Your task to perform on an android device: Open internet settings Image 0: 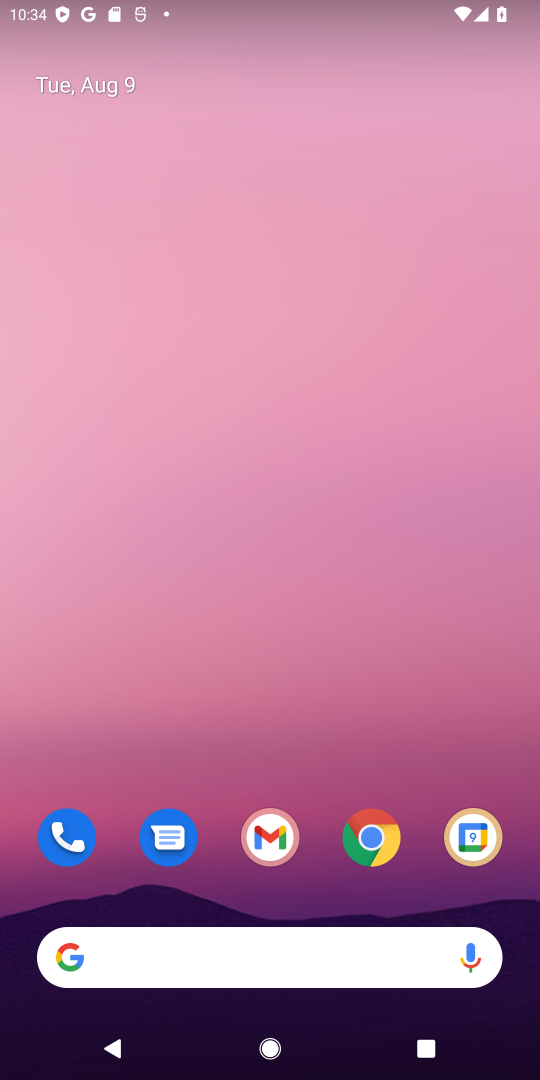
Step 0: drag from (312, 824) to (300, 141)
Your task to perform on an android device: Open internet settings Image 1: 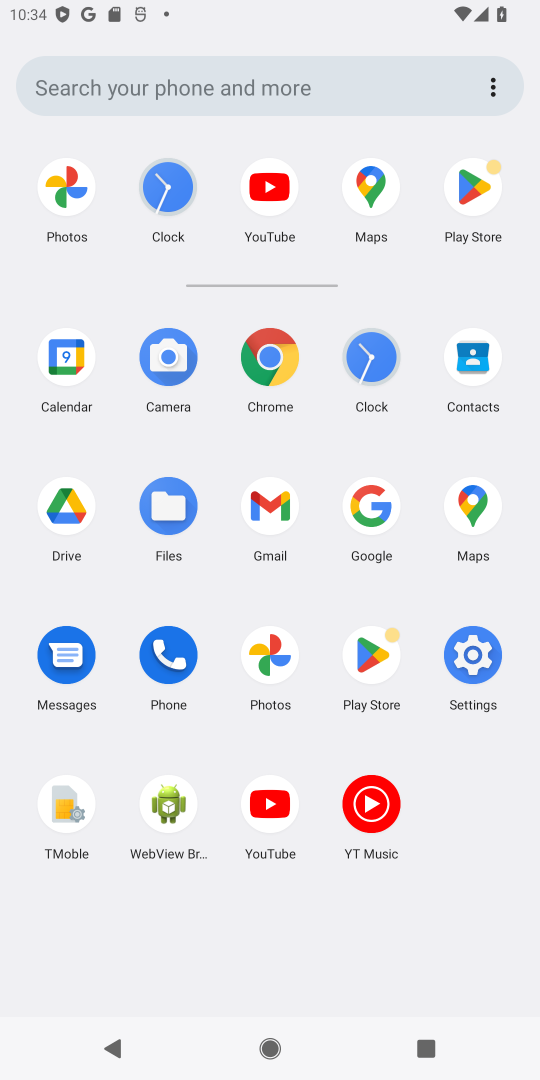
Step 1: click (467, 662)
Your task to perform on an android device: Open internet settings Image 2: 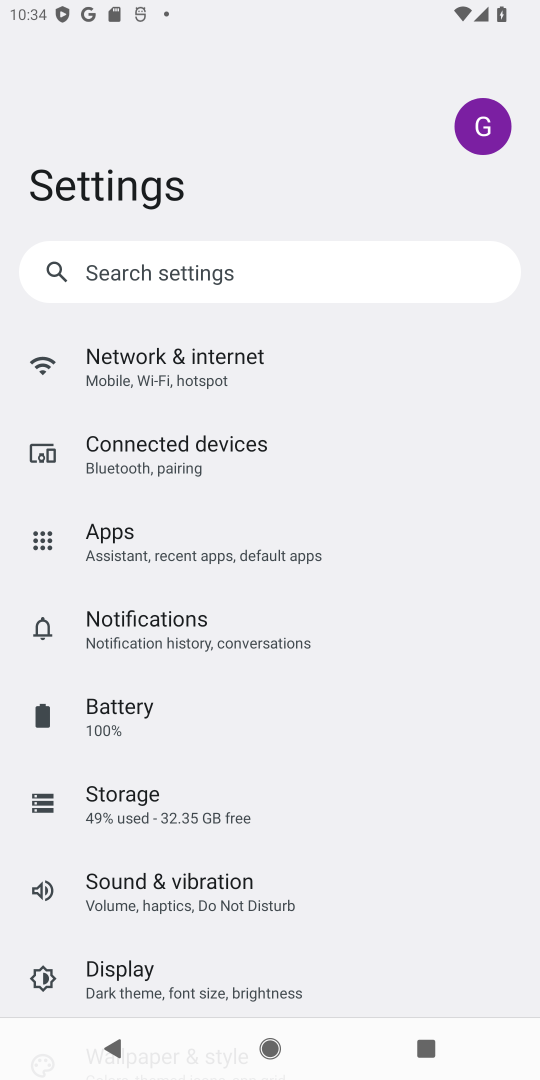
Step 2: click (176, 364)
Your task to perform on an android device: Open internet settings Image 3: 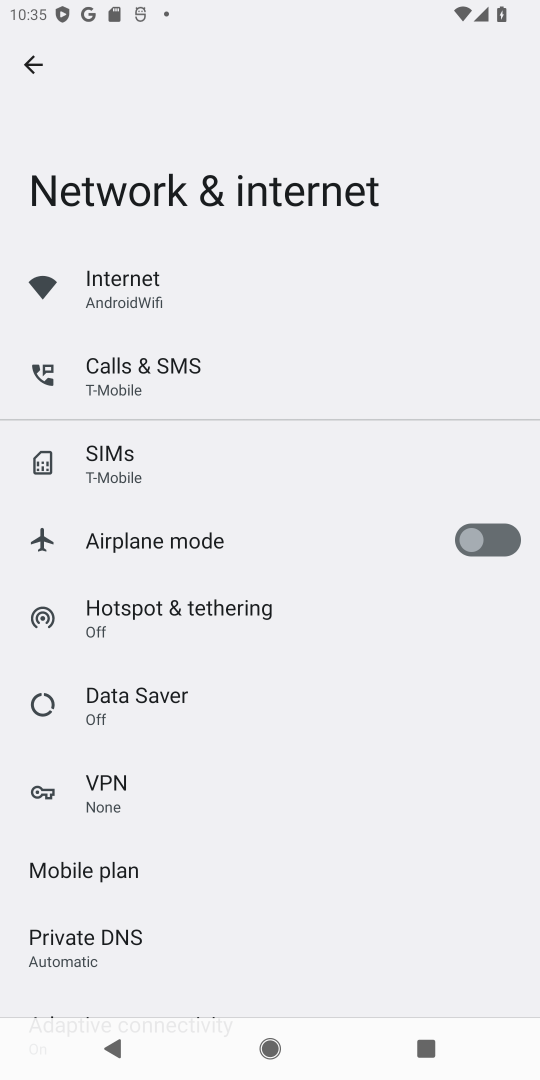
Step 3: click (109, 283)
Your task to perform on an android device: Open internet settings Image 4: 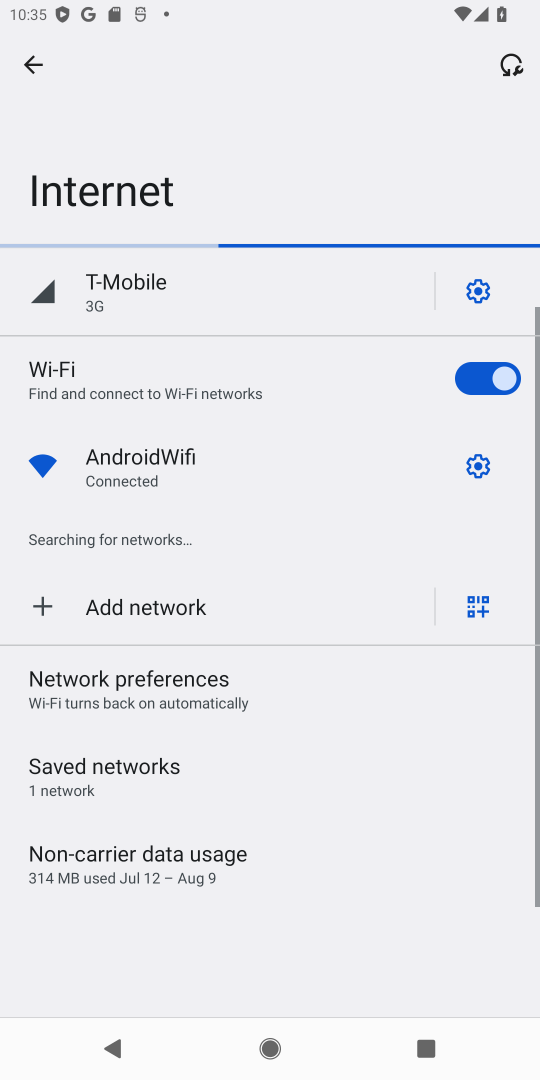
Step 4: task complete